Your task to perform on an android device: Open wifi settings Image 0: 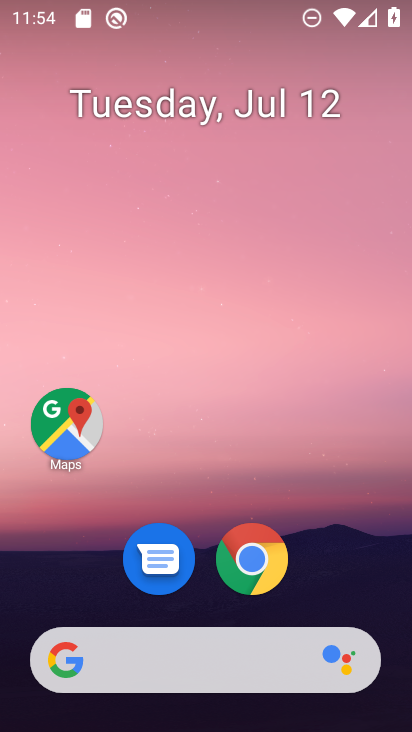
Step 0: drag from (249, 619) to (256, 71)
Your task to perform on an android device: Open wifi settings Image 1: 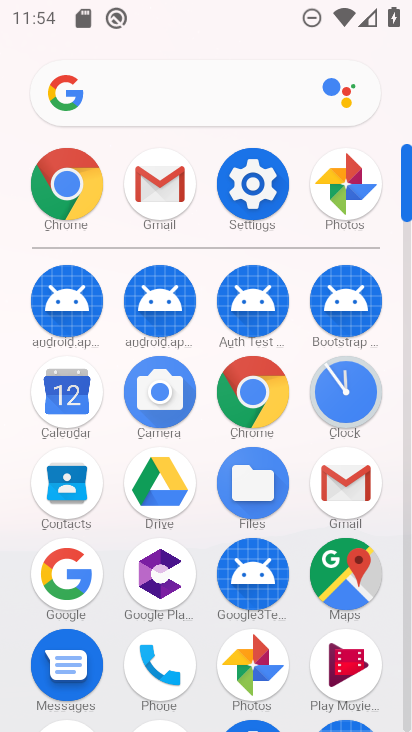
Step 1: click (269, 194)
Your task to perform on an android device: Open wifi settings Image 2: 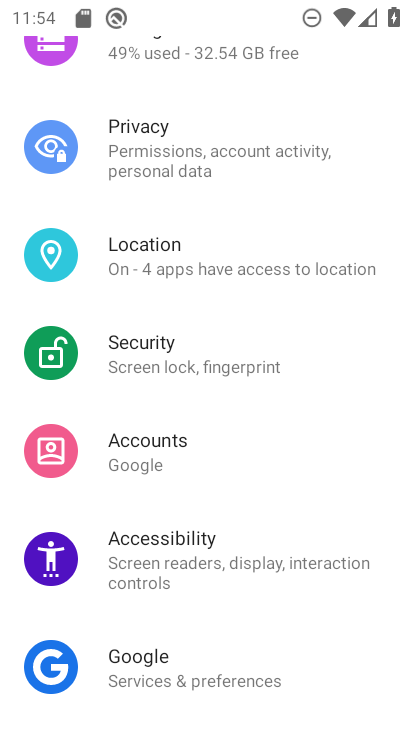
Step 2: drag from (204, 314) to (199, 642)
Your task to perform on an android device: Open wifi settings Image 3: 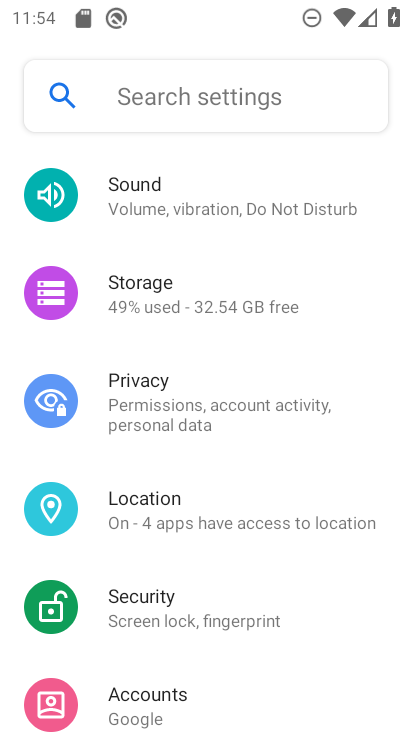
Step 3: drag from (222, 317) to (223, 564)
Your task to perform on an android device: Open wifi settings Image 4: 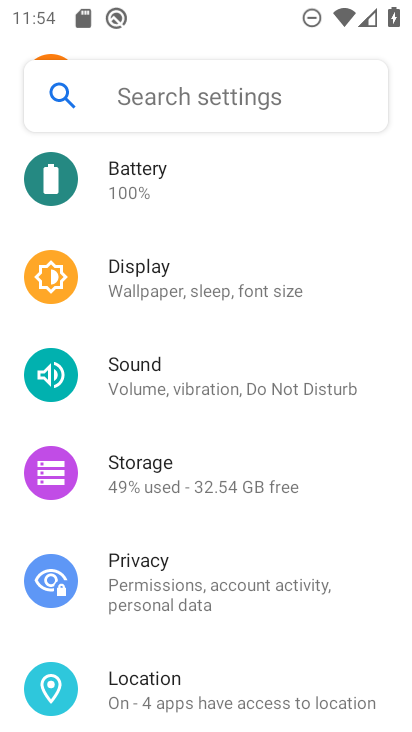
Step 4: drag from (219, 241) to (204, 644)
Your task to perform on an android device: Open wifi settings Image 5: 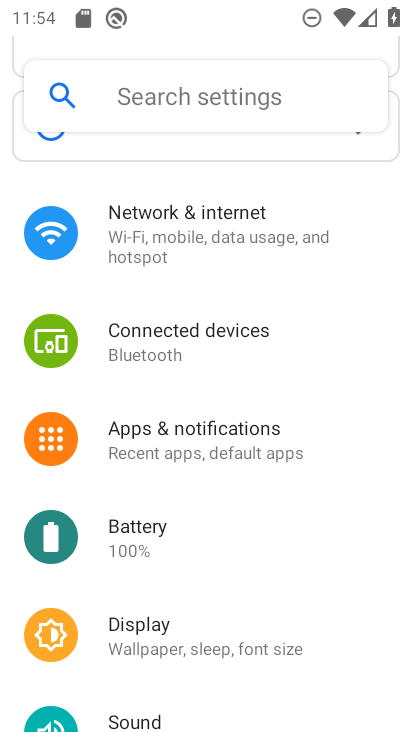
Step 5: click (202, 220)
Your task to perform on an android device: Open wifi settings Image 6: 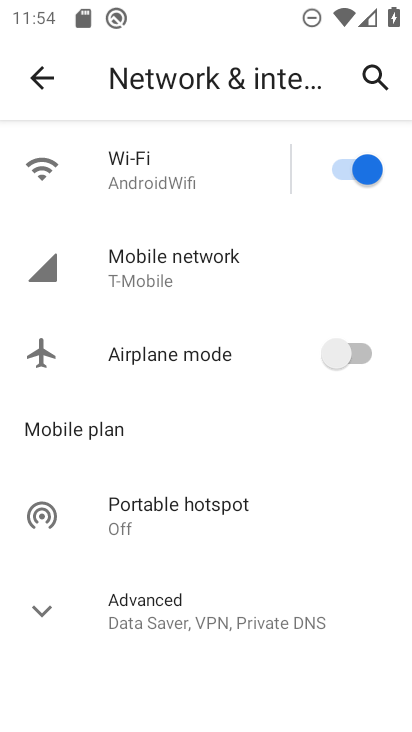
Step 6: click (205, 198)
Your task to perform on an android device: Open wifi settings Image 7: 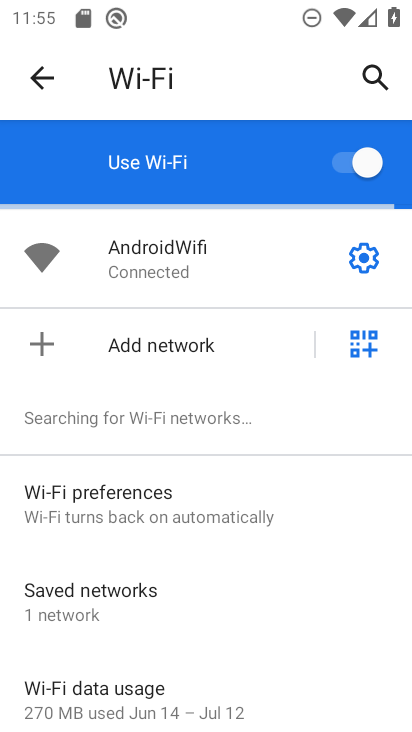
Step 7: task complete